Your task to perform on an android device: Show me the alarms in the clock app Image 0: 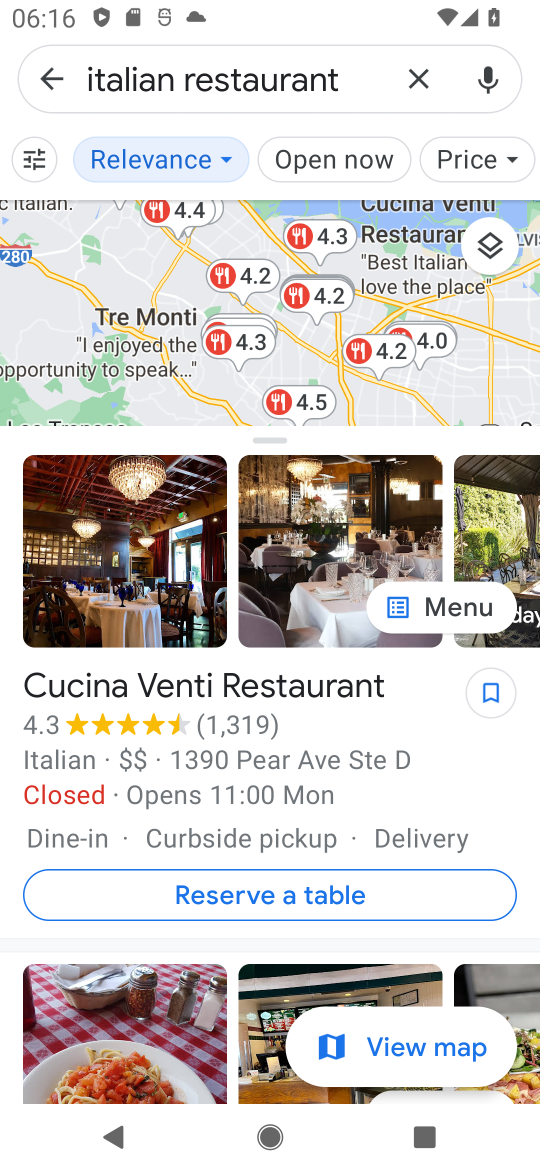
Step 0: press home button
Your task to perform on an android device: Show me the alarms in the clock app Image 1: 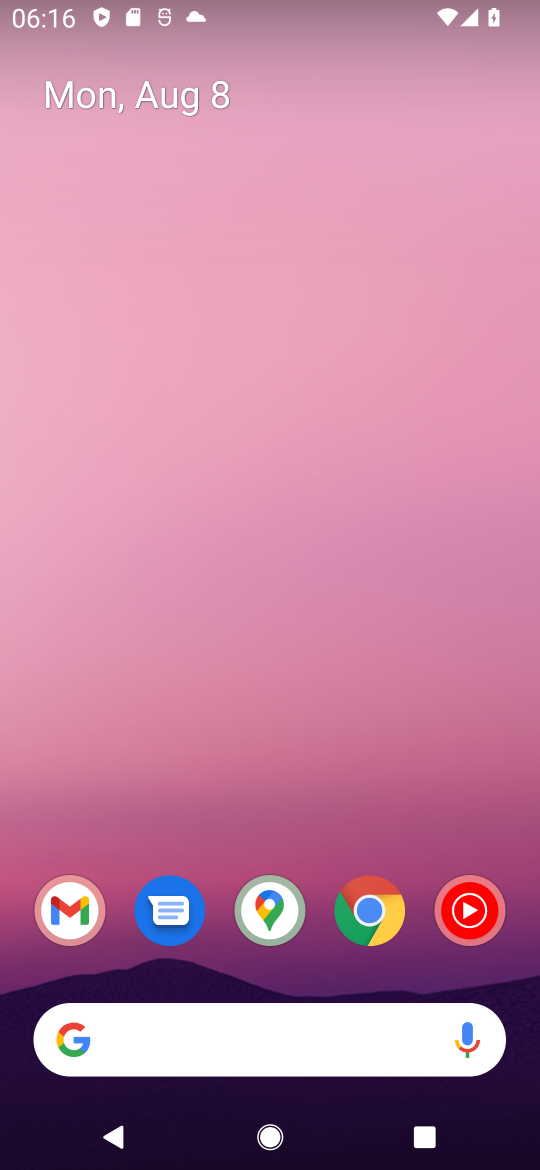
Step 1: drag from (187, 1040) to (244, 379)
Your task to perform on an android device: Show me the alarms in the clock app Image 2: 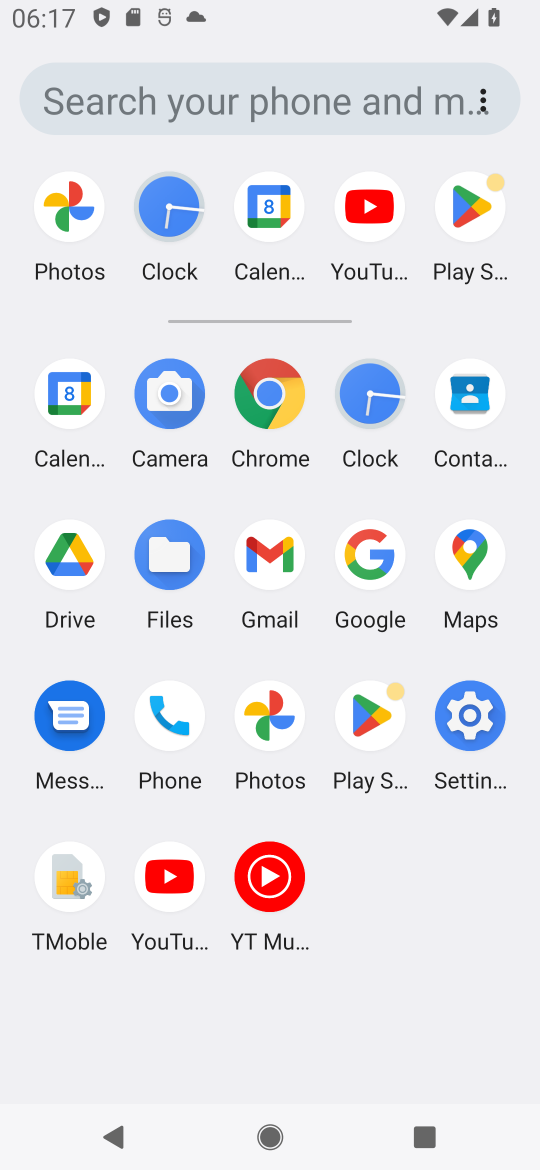
Step 2: click (370, 393)
Your task to perform on an android device: Show me the alarms in the clock app Image 3: 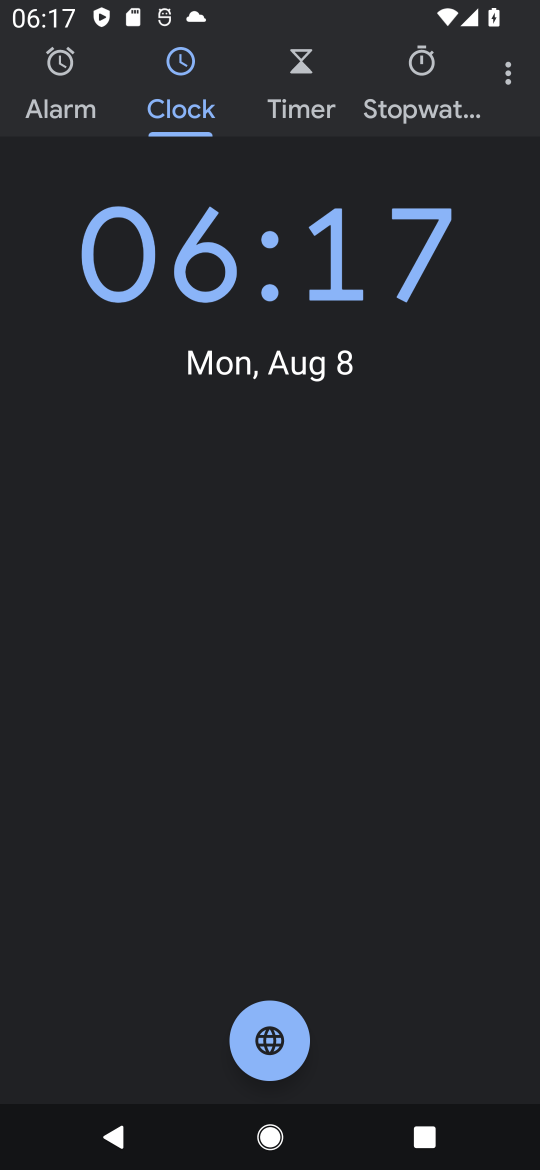
Step 3: click (60, 72)
Your task to perform on an android device: Show me the alarms in the clock app Image 4: 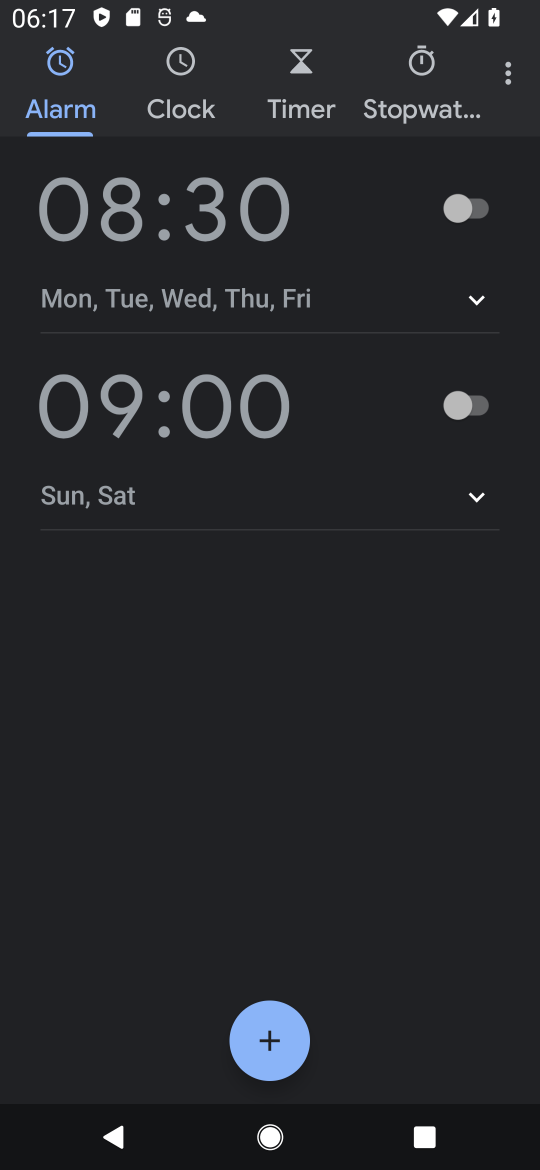
Step 4: click (189, 419)
Your task to perform on an android device: Show me the alarms in the clock app Image 5: 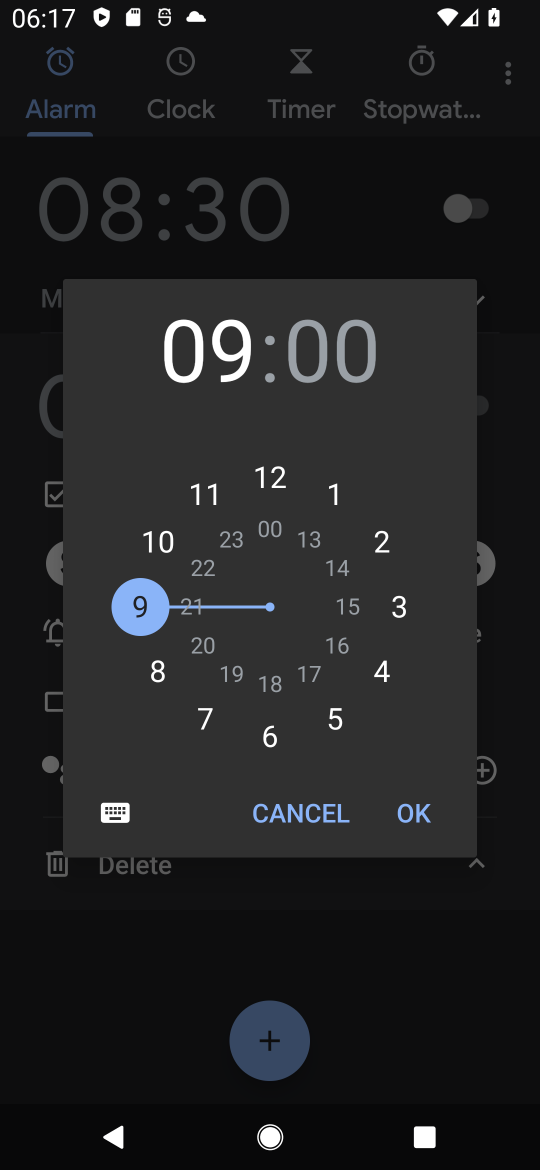
Step 5: click (277, 527)
Your task to perform on an android device: Show me the alarms in the clock app Image 6: 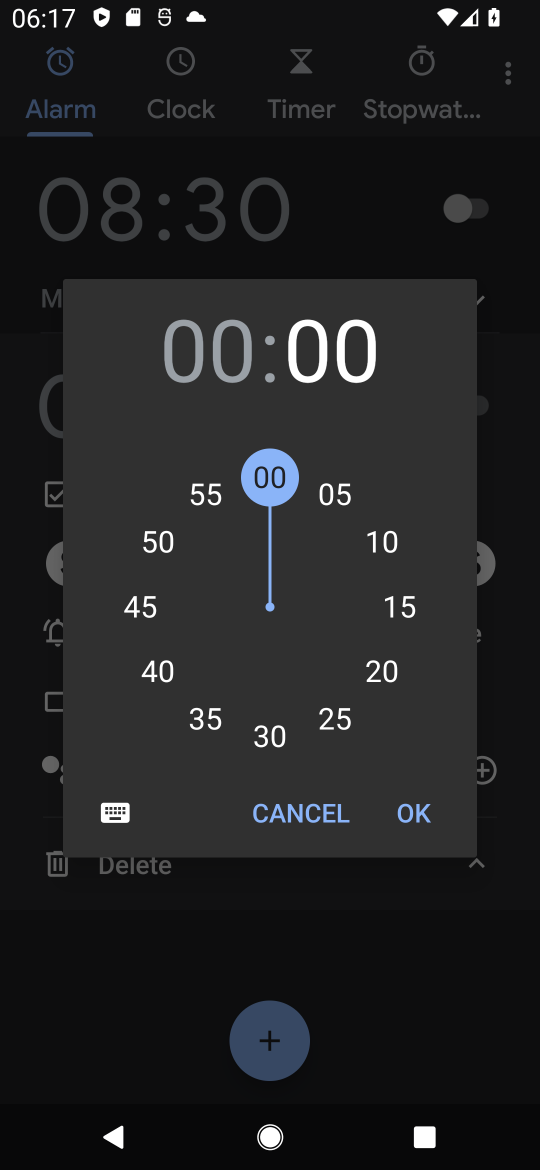
Step 6: click (362, 671)
Your task to perform on an android device: Show me the alarms in the clock app Image 7: 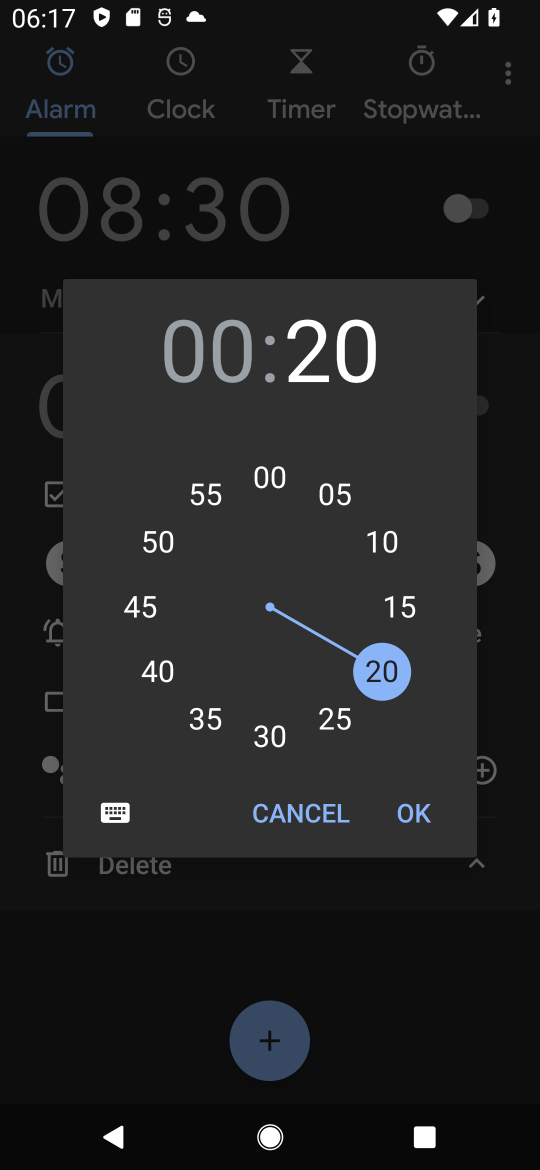
Step 7: click (417, 819)
Your task to perform on an android device: Show me the alarms in the clock app Image 8: 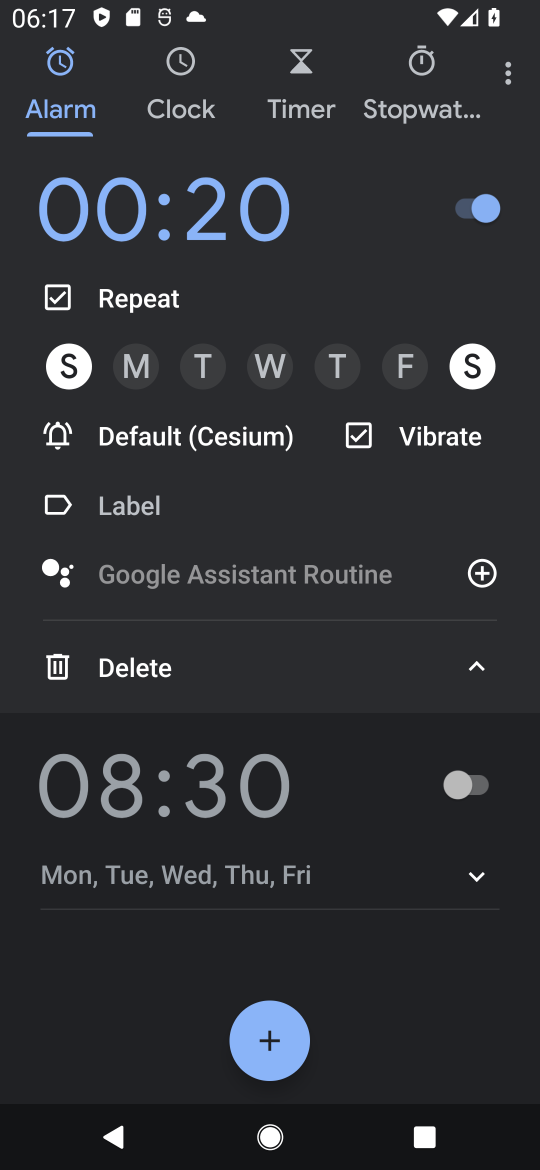
Step 8: task complete